Your task to perform on an android device: check battery use Image 0: 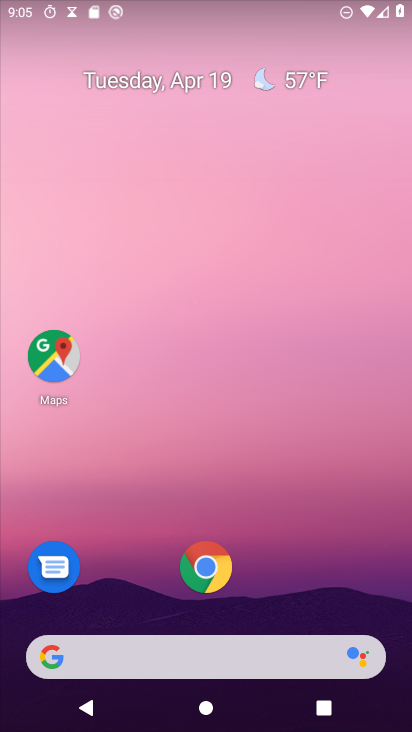
Step 0: drag from (279, 520) to (344, 149)
Your task to perform on an android device: check battery use Image 1: 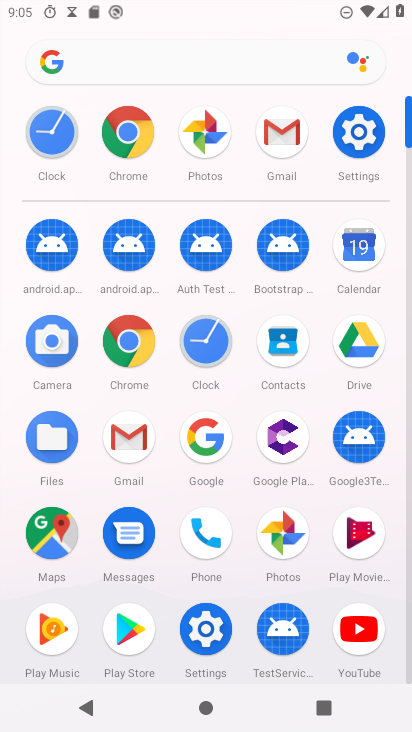
Step 1: click (355, 143)
Your task to perform on an android device: check battery use Image 2: 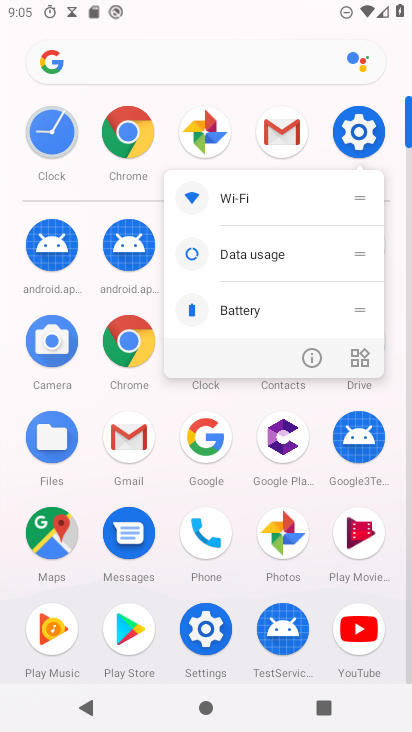
Step 2: click (355, 143)
Your task to perform on an android device: check battery use Image 3: 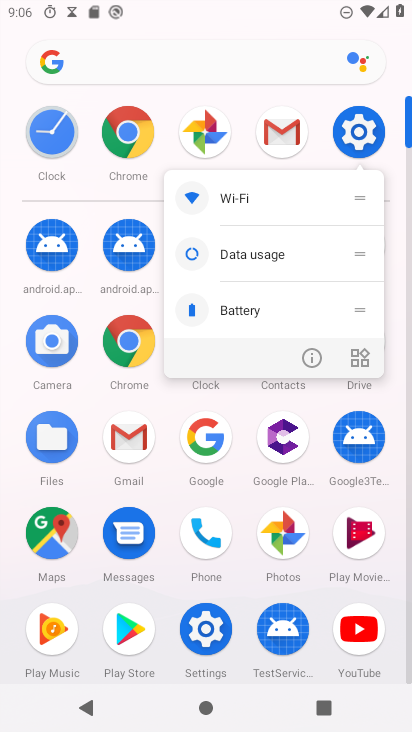
Step 3: click (355, 143)
Your task to perform on an android device: check battery use Image 4: 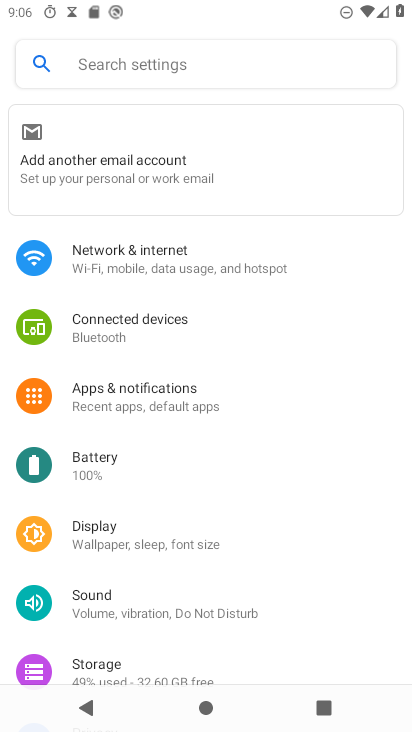
Step 4: click (120, 456)
Your task to perform on an android device: check battery use Image 5: 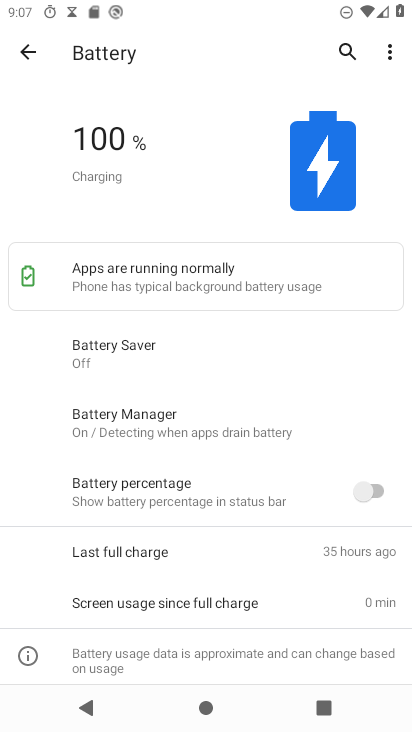
Step 5: task complete